Your task to perform on an android device: refresh tabs in the chrome app Image 0: 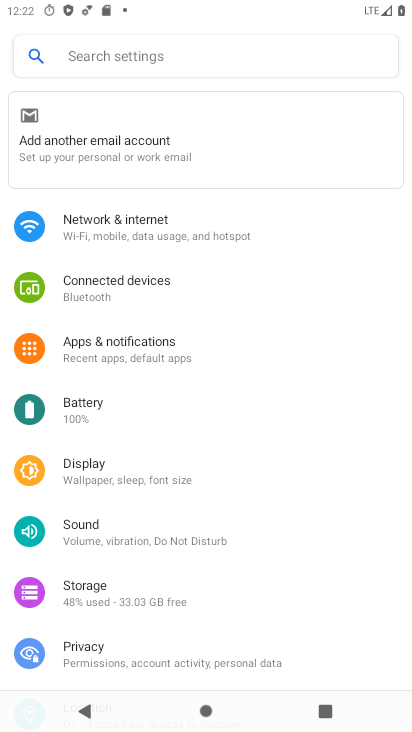
Step 0: press home button
Your task to perform on an android device: refresh tabs in the chrome app Image 1: 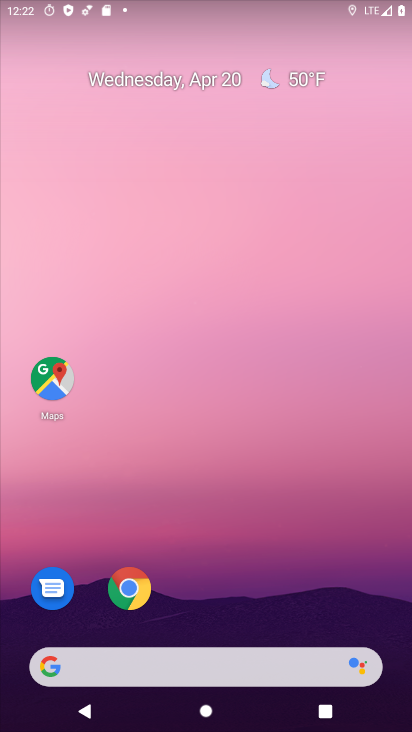
Step 1: click (138, 588)
Your task to perform on an android device: refresh tabs in the chrome app Image 2: 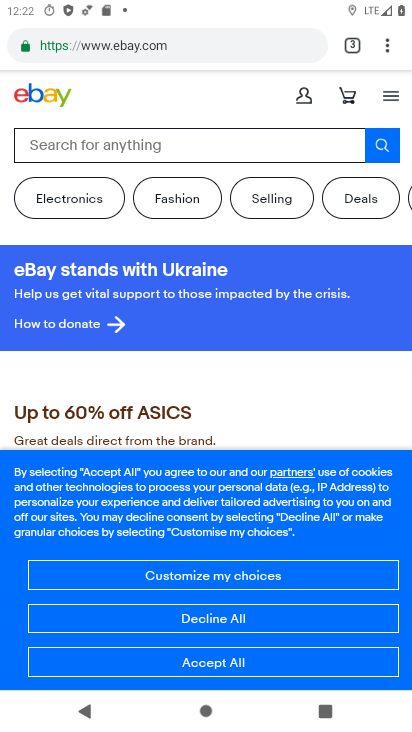
Step 2: click (383, 54)
Your task to perform on an android device: refresh tabs in the chrome app Image 3: 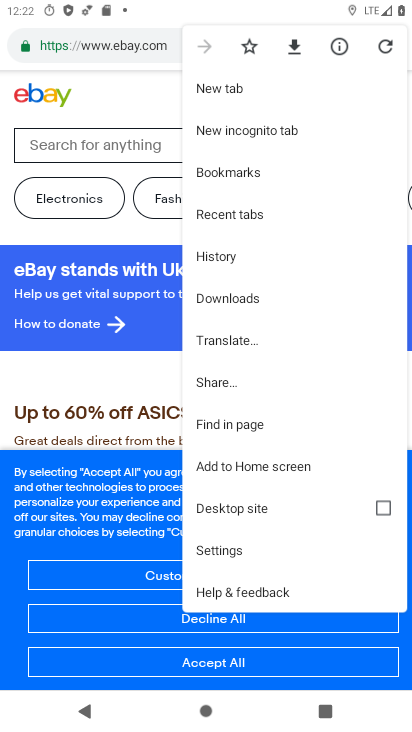
Step 3: click (385, 45)
Your task to perform on an android device: refresh tabs in the chrome app Image 4: 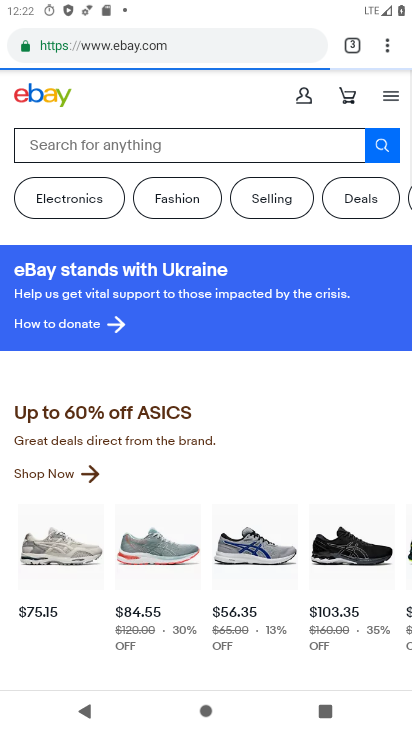
Step 4: task complete